Your task to perform on an android device: Check my gmail inbox Image 0: 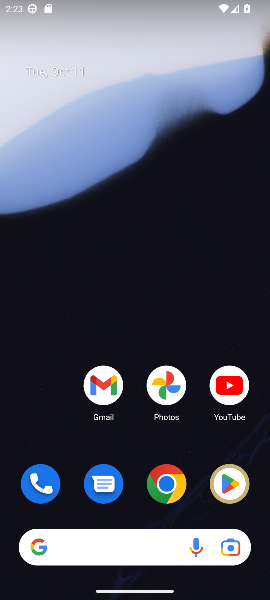
Step 0: press home button
Your task to perform on an android device: Check my gmail inbox Image 1: 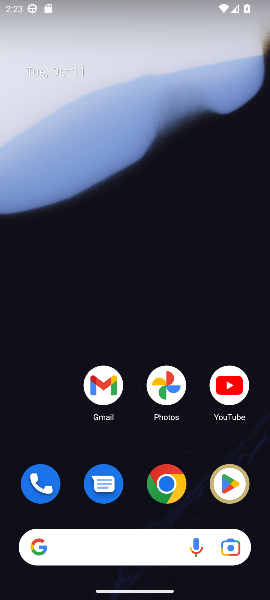
Step 1: drag from (59, 401) to (60, 42)
Your task to perform on an android device: Check my gmail inbox Image 2: 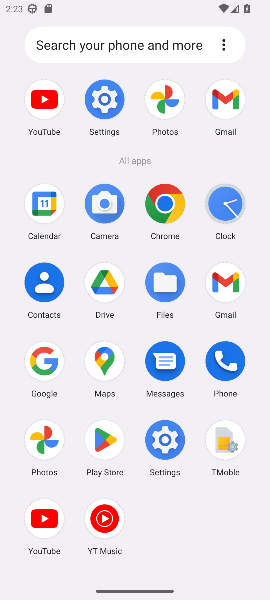
Step 2: click (39, 361)
Your task to perform on an android device: Check my gmail inbox Image 3: 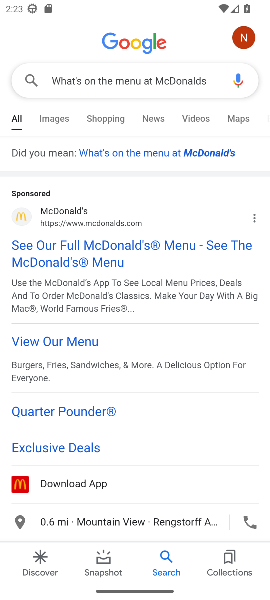
Step 3: press back button
Your task to perform on an android device: Check my gmail inbox Image 4: 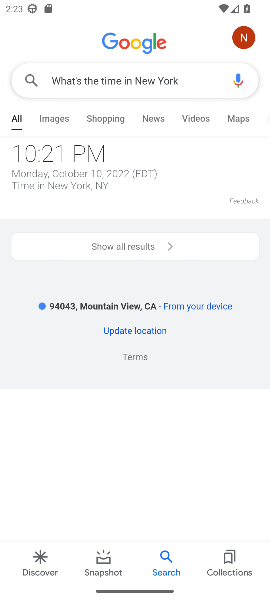
Step 4: click (187, 79)
Your task to perform on an android device: Check my gmail inbox Image 5: 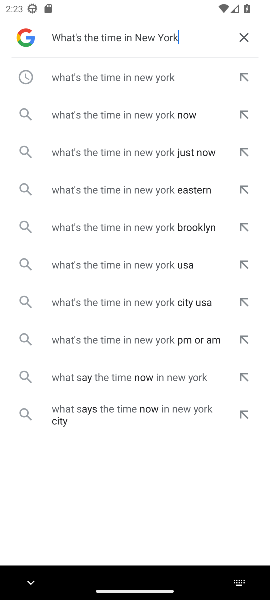
Step 5: click (246, 33)
Your task to perform on an android device: Check my gmail inbox Image 6: 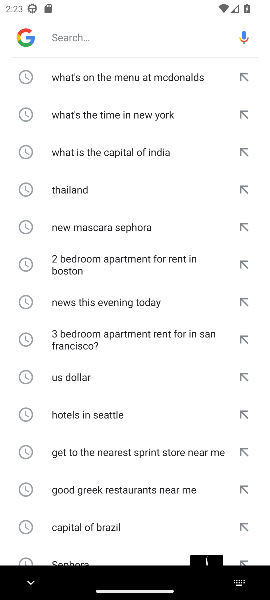
Step 6: press home button
Your task to perform on an android device: Check my gmail inbox Image 7: 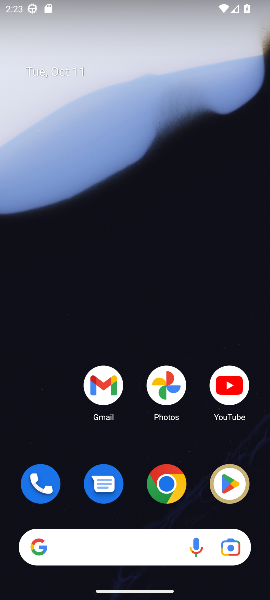
Step 7: drag from (54, 391) to (44, 24)
Your task to perform on an android device: Check my gmail inbox Image 8: 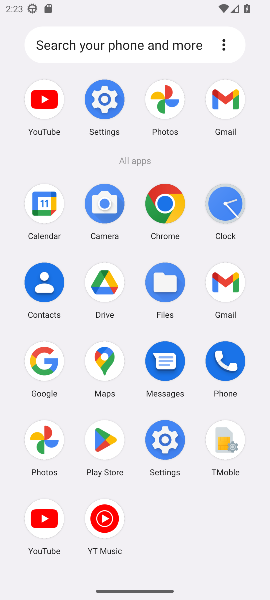
Step 8: click (229, 287)
Your task to perform on an android device: Check my gmail inbox Image 9: 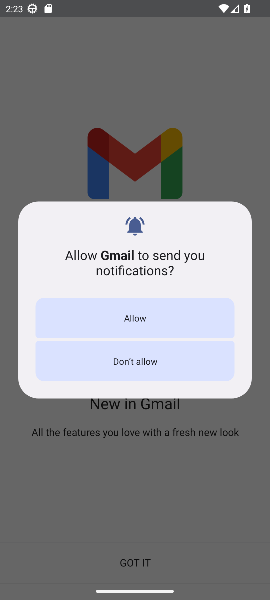
Step 9: click (135, 365)
Your task to perform on an android device: Check my gmail inbox Image 10: 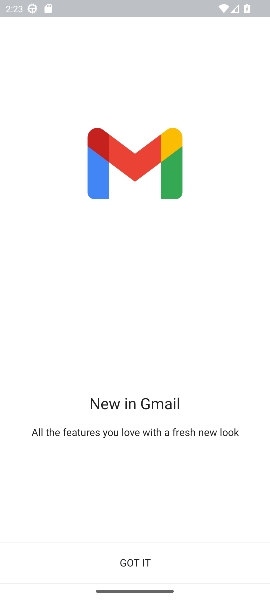
Step 10: click (144, 561)
Your task to perform on an android device: Check my gmail inbox Image 11: 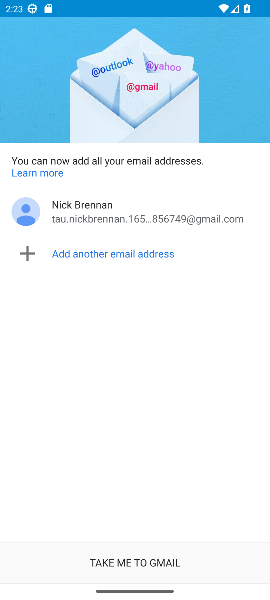
Step 11: click (144, 561)
Your task to perform on an android device: Check my gmail inbox Image 12: 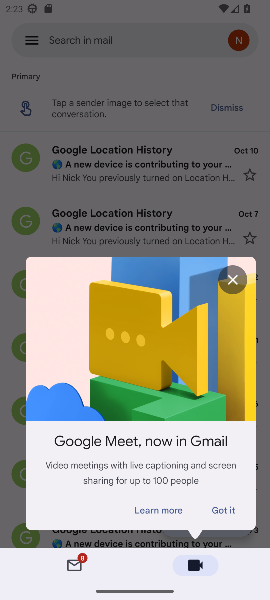
Step 12: click (233, 276)
Your task to perform on an android device: Check my gmail inbox Image 13: 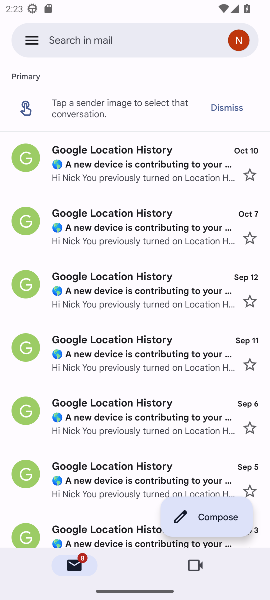
Step 13: task complete